Your task to perform on an android device: Search for pizza restaurants on Maps Image 0: 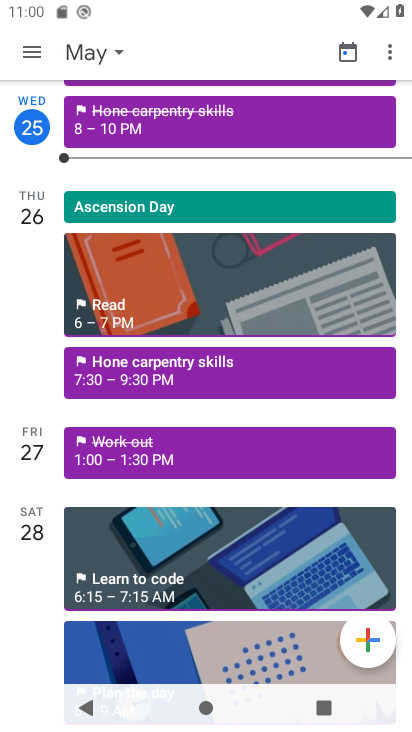
Step 0: press home button
Your task to perform on an android device: Search for pizza restaurants on Maps Image 1: 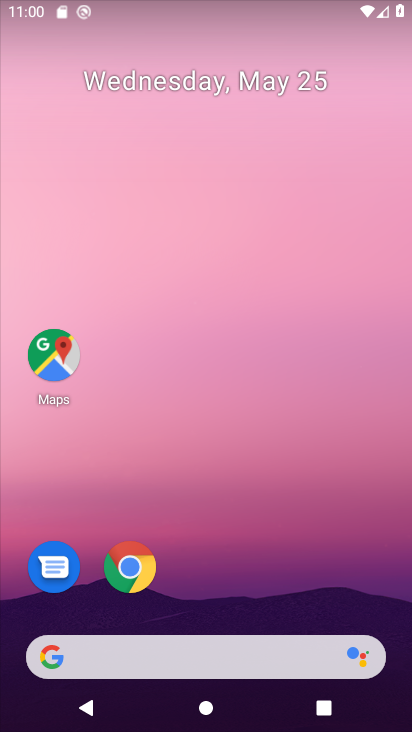
Step 1: click (50, 356)
Your task to perform on an android device: Search for pizza restaurants on Maps Image 2: 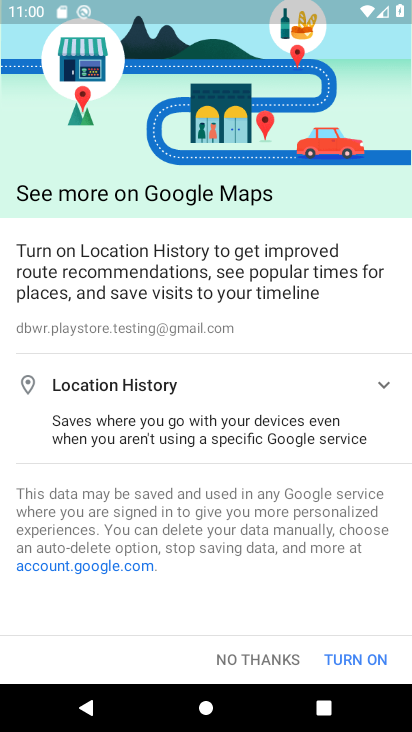
Step 2: click (352, 659)
Your task to perform on an android device: Search for pizza restaurants on Maps Image 3: 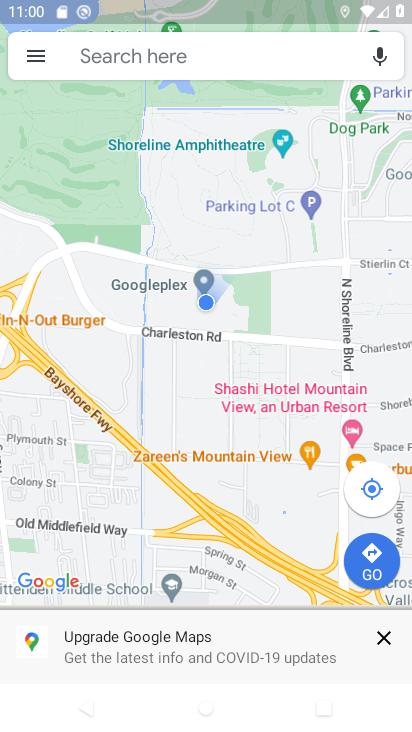
Step 3: click (268, 66)
Your task to perform on an android device: Search for pizza restaurants on Maps Image 4: 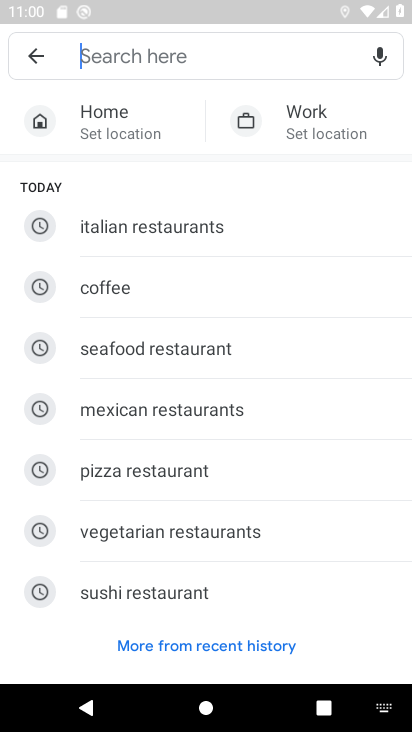
Step 4: click (116, 465)
Your task to perform on an android device: Search for pizza restaurants on Maps Image 5: 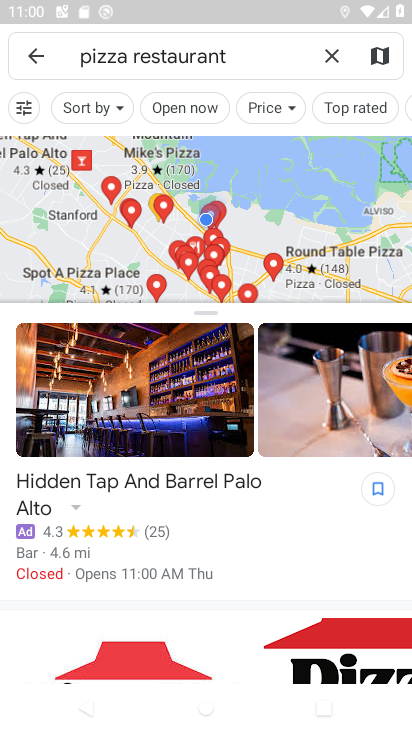
Step 5: task complete